Your task to perform on an android device: check google app version Image 0: 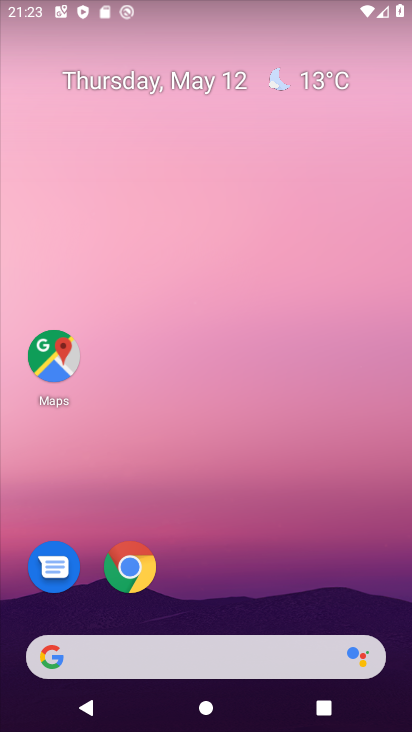
Step 0: press home button
Your task to perform on an android device: check google app version Image 1: 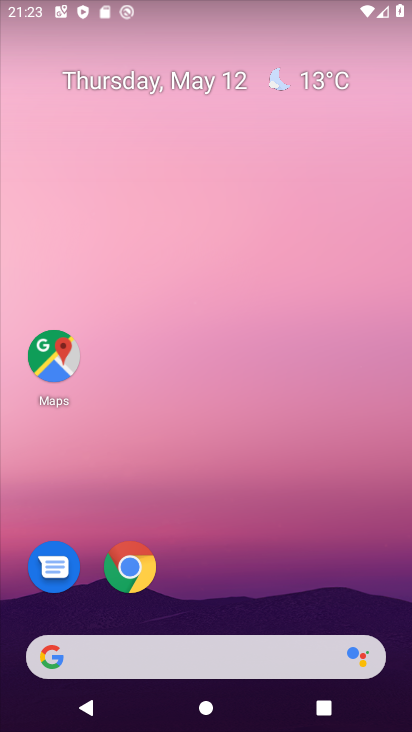
Step 1: drag from (217, 612) to (235, 31)
Your task to perform on an android device: check google app version Image 2: 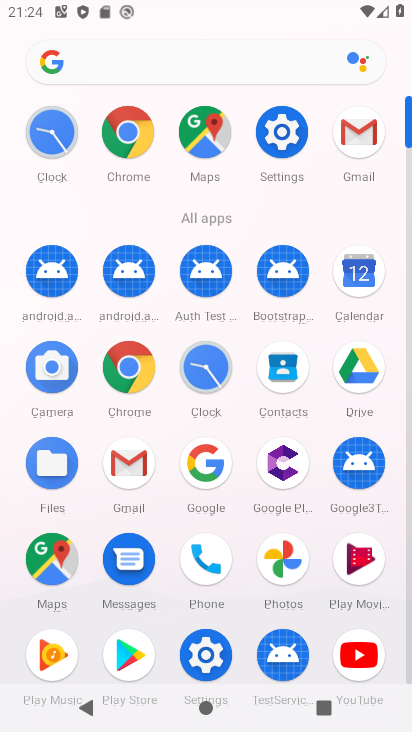
Step 2: click (203, 459)
Your task to perform on an android device: check google app version Image 3: 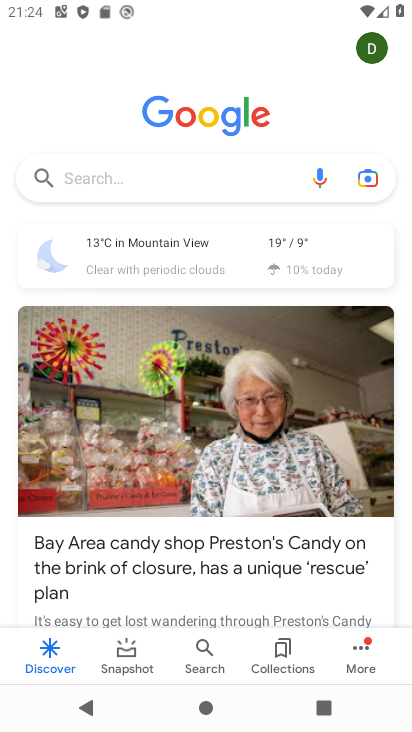
Step 3: click (358, 642)
Your task to perform on an android device: check google app version Image 4: 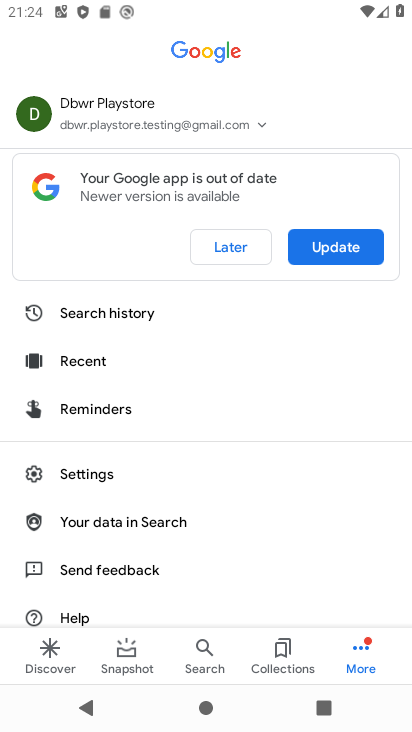
Step 4: click (226, 240)
Your task to perform on an android device: check google app version Image 5: 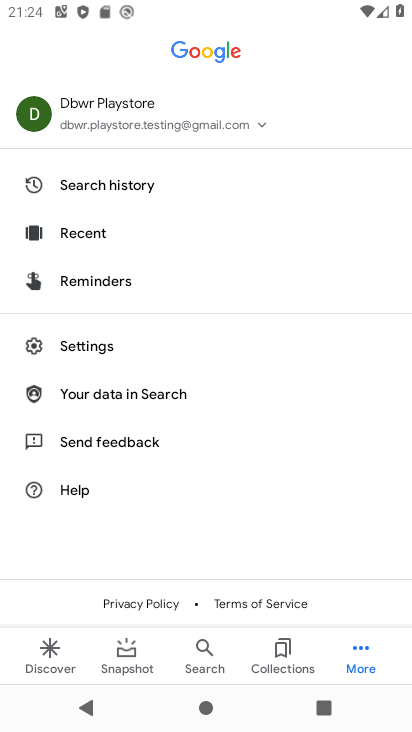
Step 5: click (124, 343)
Your task to perform on an android device: check google app version Image 6: 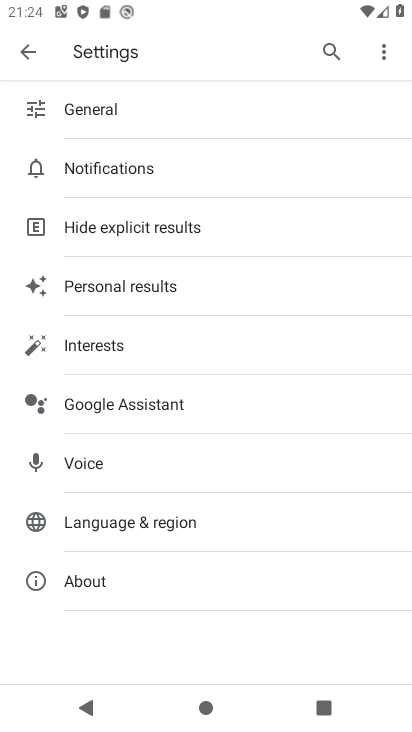
Step 6: click (121, 580)
Your task to perform on an android device: check google app version Image 7: 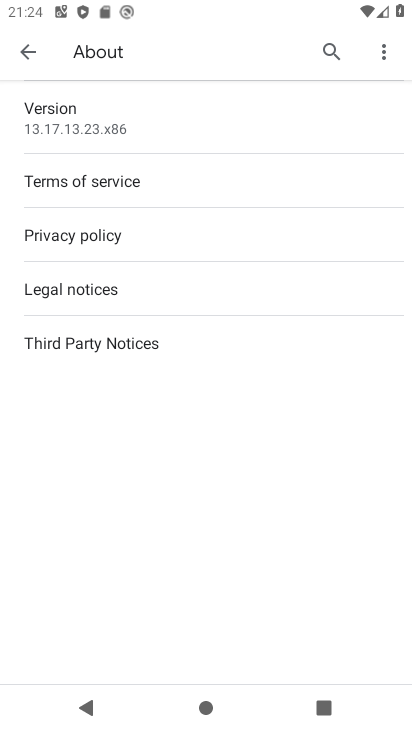
Step 7: task complete